Your task to perform on an android device: refresh tabs in the chrome app Image 0: 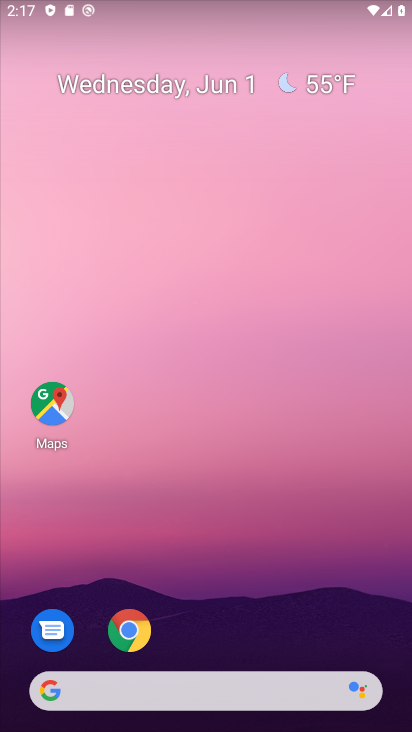
Step 0: click (117, 639)
Your task to perform on an android device: refresh tabs in the chrome app Image 1: 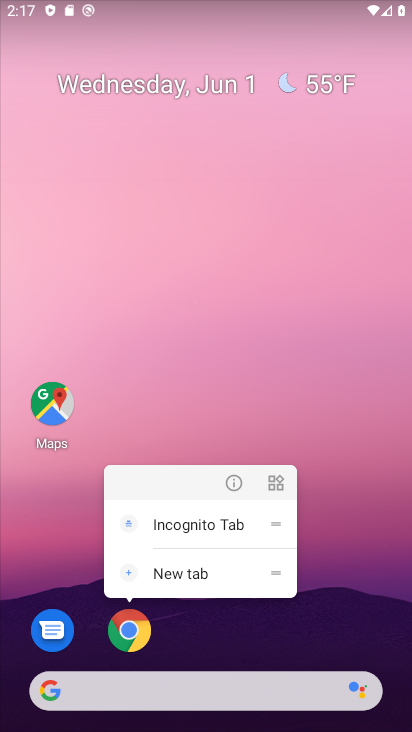
Step 1: click (119, 633)
Your task to perform on an android device: refresh tabs in the chrome app Image 2: 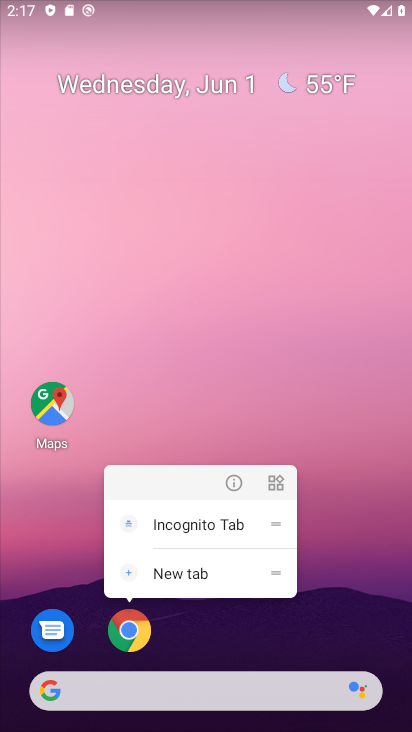
Step 2: click (122, 635)
Your task to perform on an android device: refresh tabs in the chrome app Image 3: 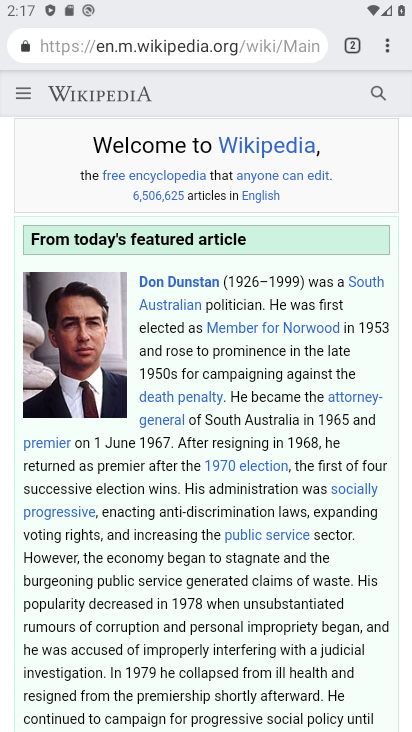
Step 3: click (383, 41)
Your task to perform on an android device: refresh tabs in the chrome app Image 4: 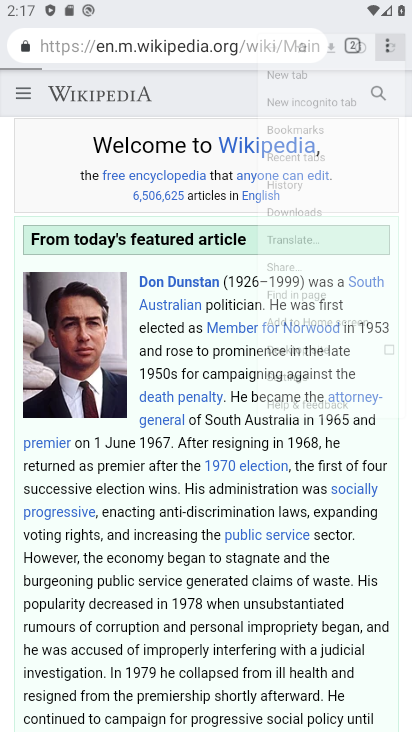
Step 4: click (383, 43)
Your task to perform on an android device: refresh tabs in the chrome app Image 5: 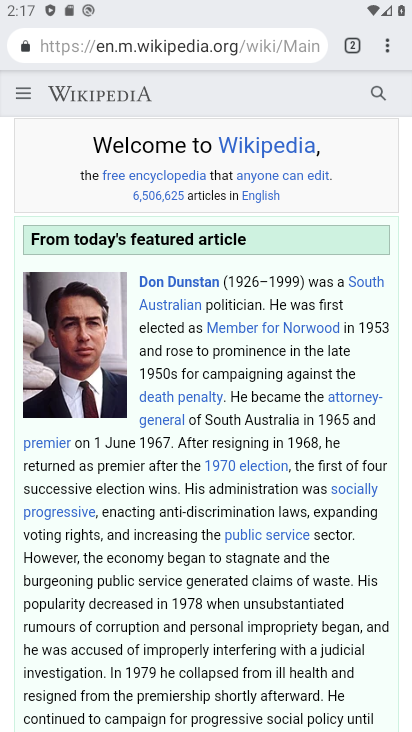
Step 5: task complete